Your task to perform on an android device: see creations saved in the google photos Image 0: 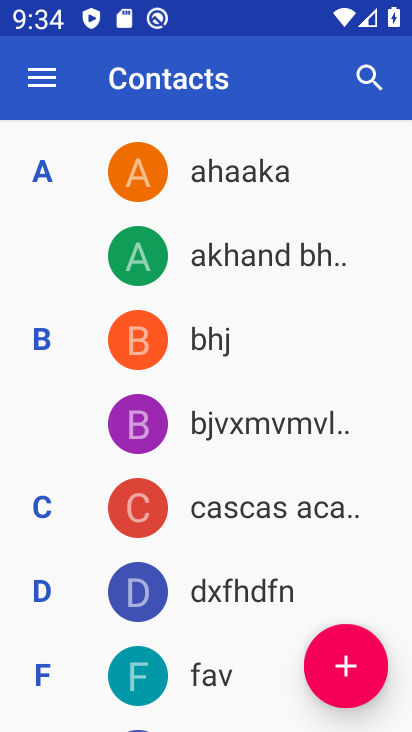
Step 0: press home button
Your task to perform on an android device: see creations saved in the google photos Image 1: 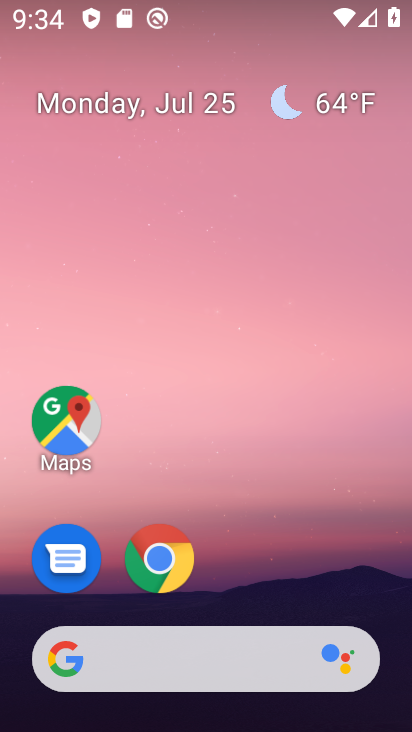
Step 1: drag from (357, 587) to (376, 119)
Your task to perform on an android device: see creations saved in the google photos Image 2: 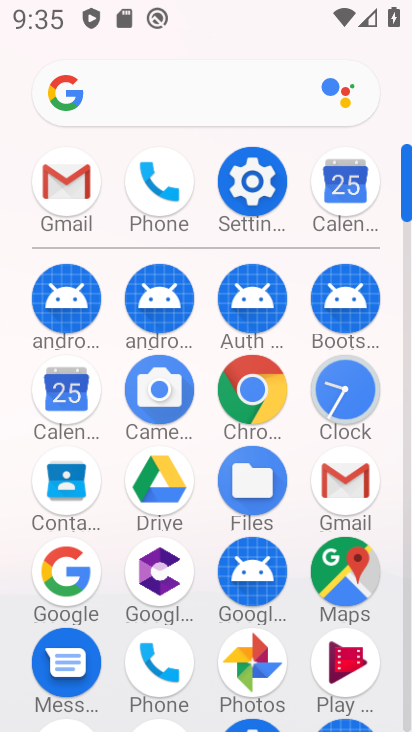
Step 2: click (260, 649)
Your task to perform on an android device: see creations saved in the google photos Image 3: 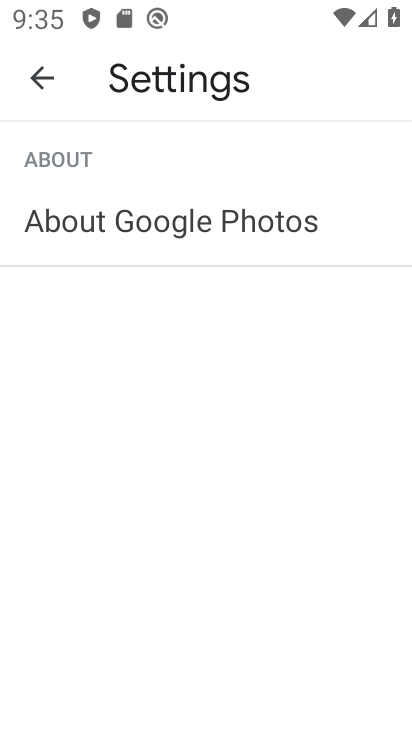
Step 3: press back button
Your task to perform on an android device: see creations saved in the google photos Image 4: 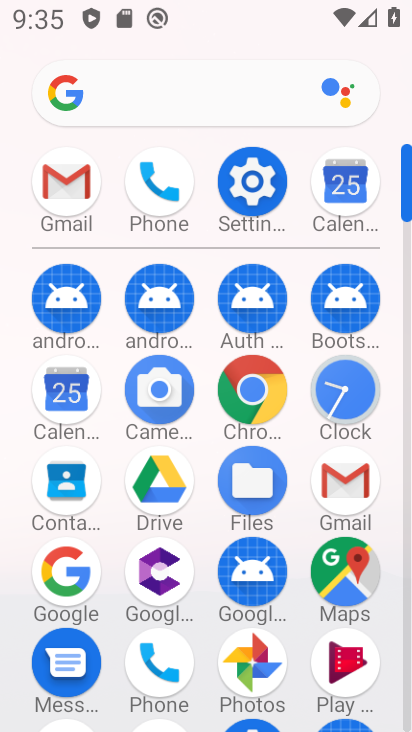
Step 4: click (251, 661)
Your task to perform on an android device: see creations saved in the google photos Image 5: 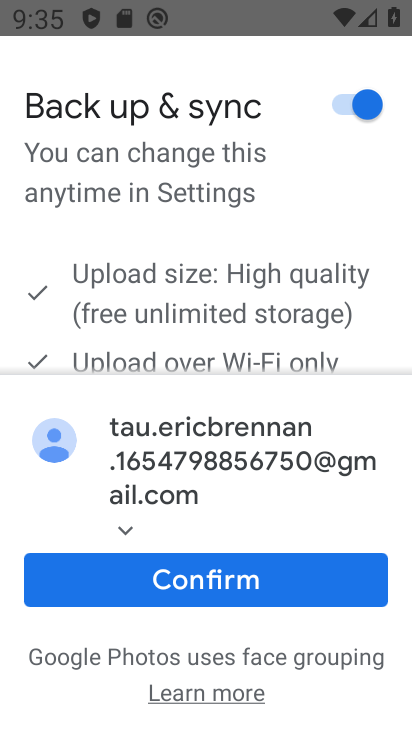
Step 5: click (257, 604)
Your task to perform on an android device: see creations saved in the google photos Image 6: 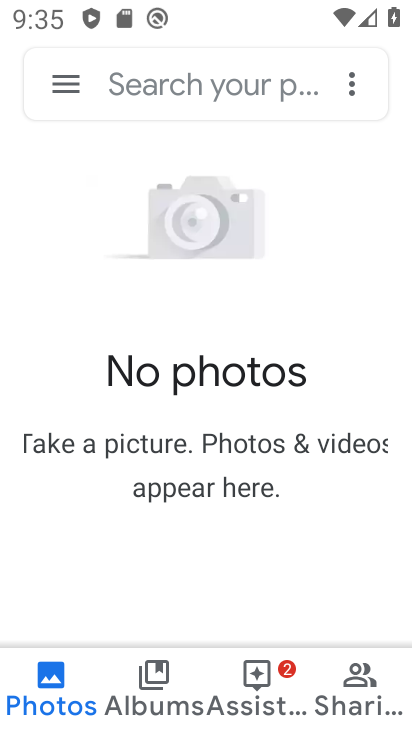
Step 6: click (185, 86)
Your task to perform on an android device: see creations saved in the google photos Image 7: 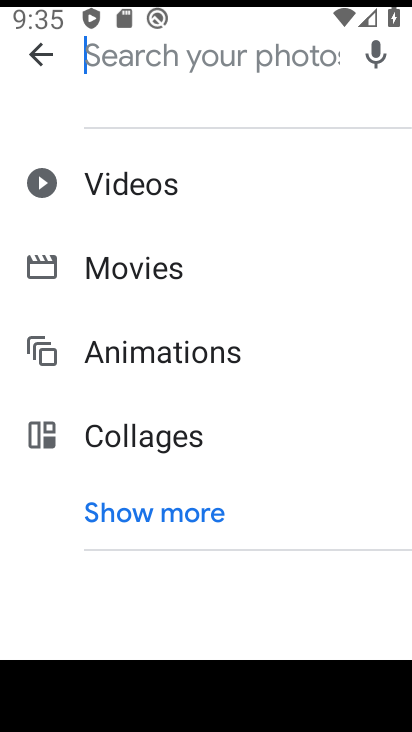
Step 7: click (201, 510)
Your task to perform on an android device: see creations saved in the google photos Image 8: 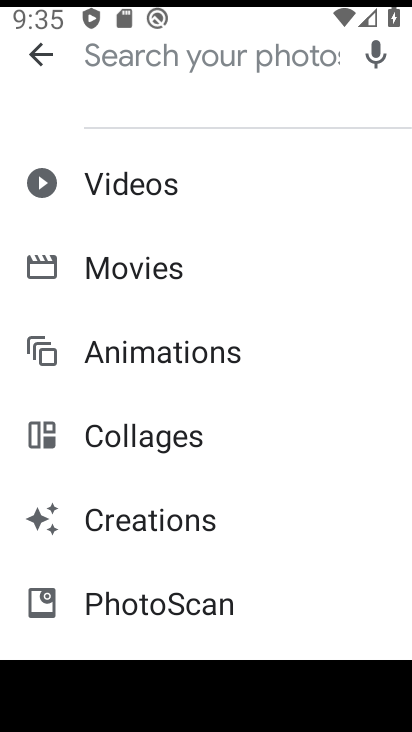
Step 8: click (193, 520)
Your task to perform on an android device: see creations saved in the google photos Image 9: 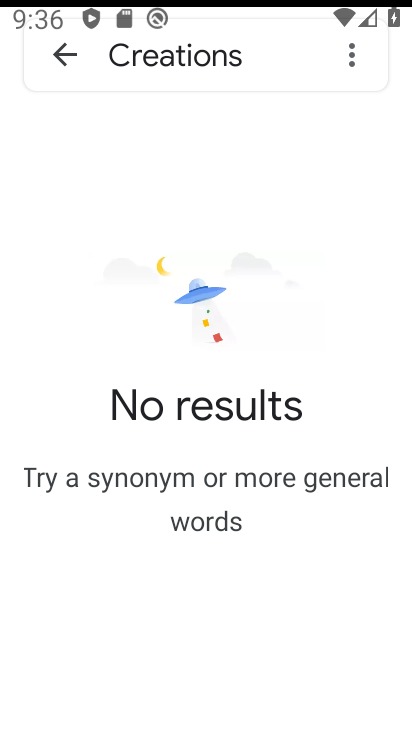
Step 9: task complete